Your task to perform on an android device: Go to Android settings Image 0: 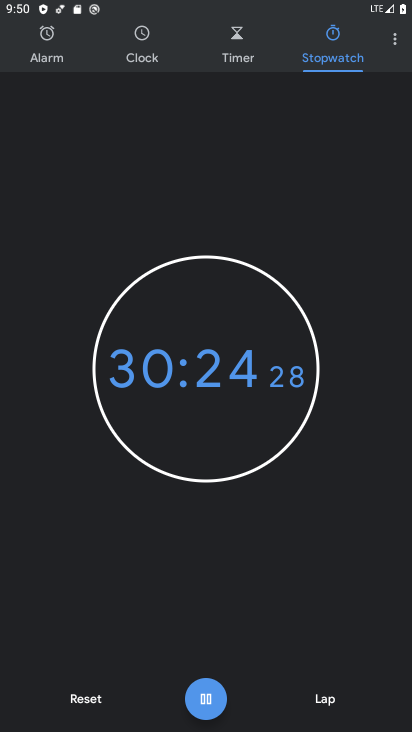
Step 0: press home button
Your task to perform on an android device: Go to Android settings Image 1: 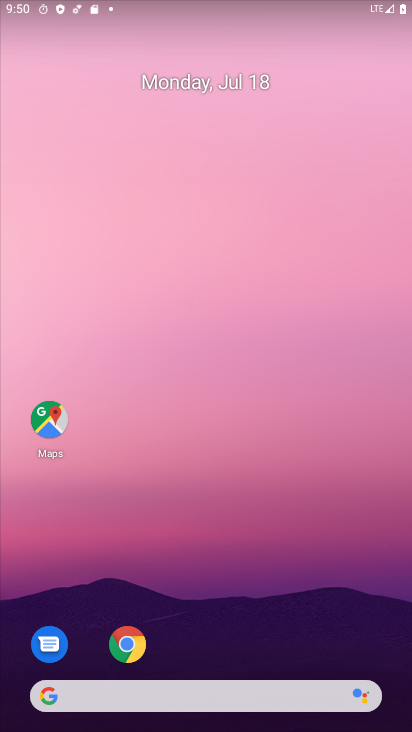
Step 1: drag from (212, 658) to (194, 7)
Your task to perform on an android device: Go to Android settings Image 2: 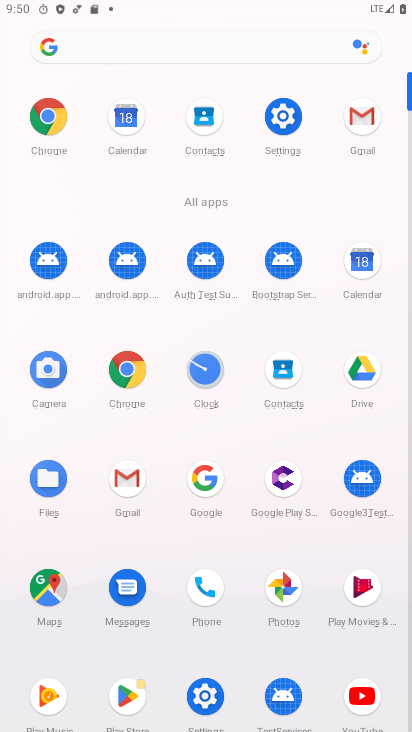
Step 2: click (282, 112)
Your task to perform on an android device: Go to Android settings Image 3: 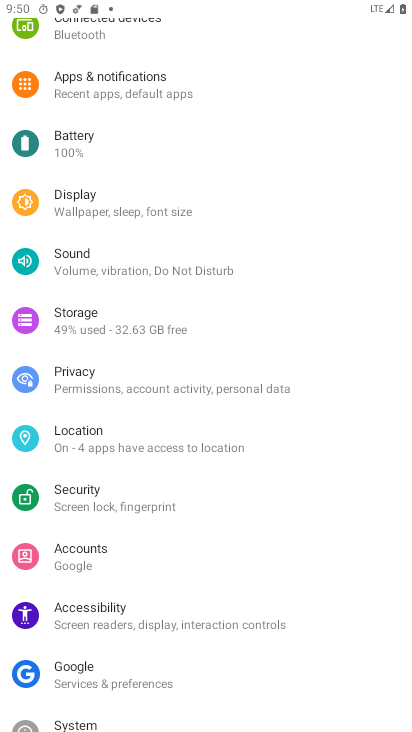
Step 3: drag from (189, 671) to (165, 171)
Your task to perform on an android device: Go to Android settings Image 4: 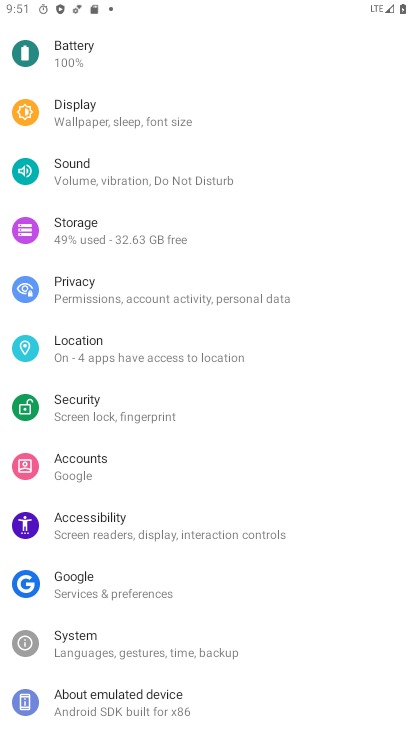
Step 4: click (190, 698)
Your task to perform on an android device: Go to Android settings Image 5: 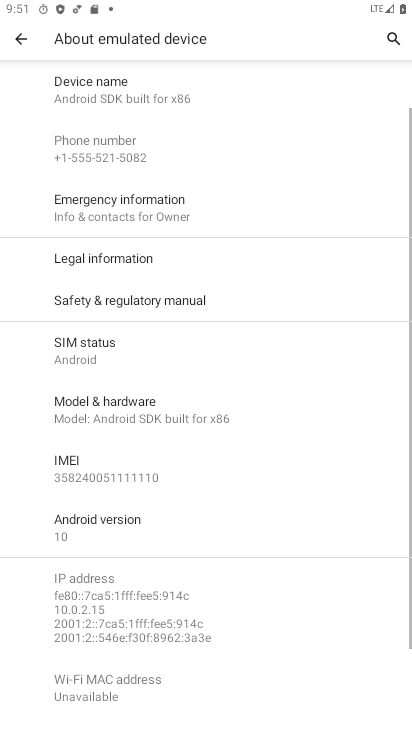
Step 5: click (100, 532)
Your task to perform on an android device: Go to Android settings Image 6: 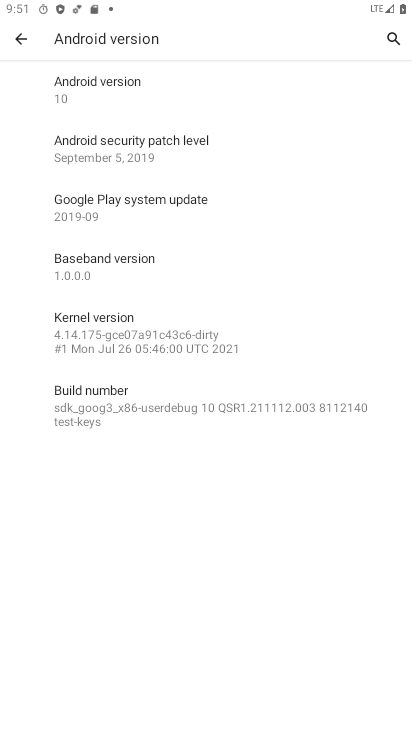
Step 6: click (92, 87)
Your task to perform on an android device: Go to Android settings Image 7: 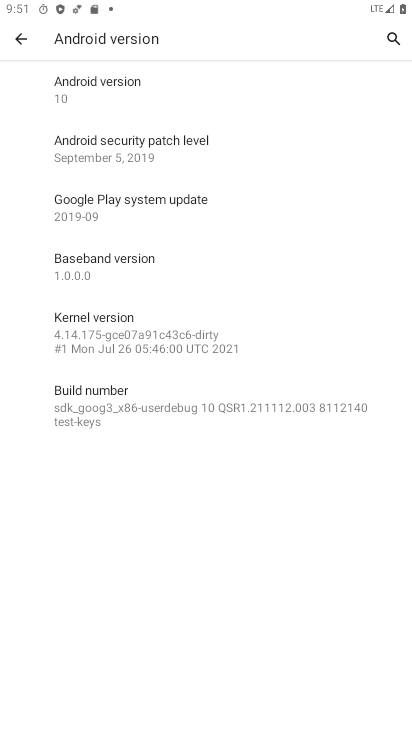
Step 7: task complete